Your task to perform on an android device: Go to Google maps Image 0: 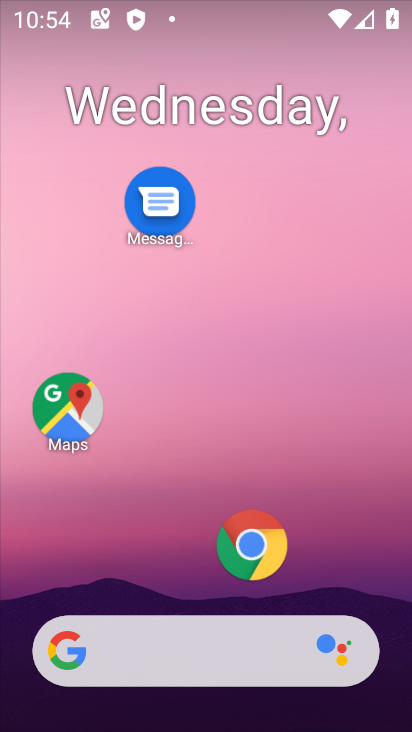
Step 0: click (79, 425)
Your task to perform on an android device: Go to Google maps Image 1: 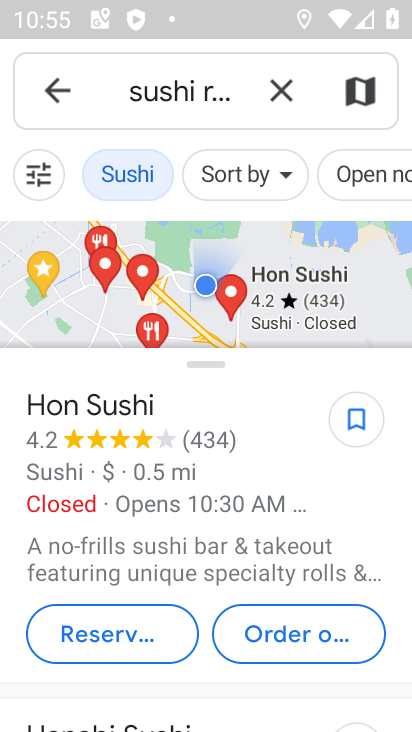
Step 1: task complete